Your task to perform on an android device: Go to privacy settings Image 0: 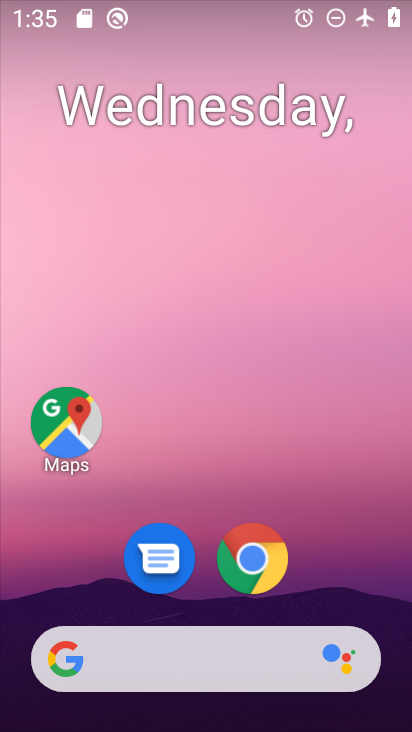
Step 0: drag from (387, 647) to (343, 56)
Your task to perform on an android device: Go to privacy settings Image 1: 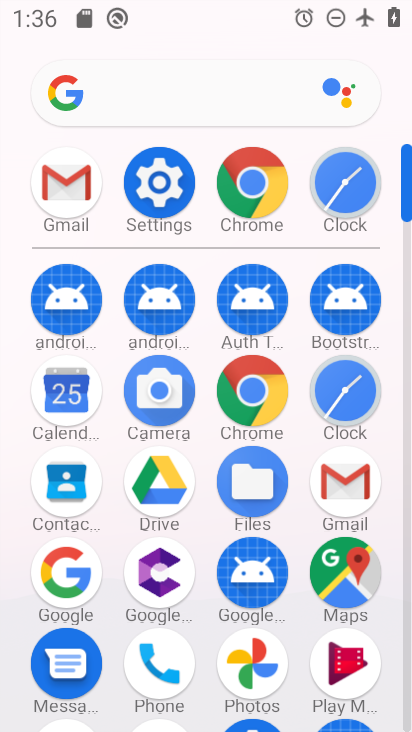
Step 1: click (148, 187)
Your task to perform on an android device: Go to privacy settings Image 2: 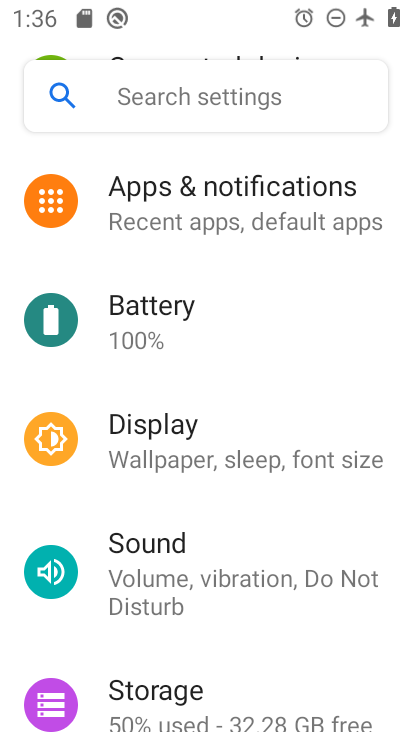
Step 2: drag from (183, 677) to (178, 207)
Your task to perform on an android device: Go to privacy settings Image 3: 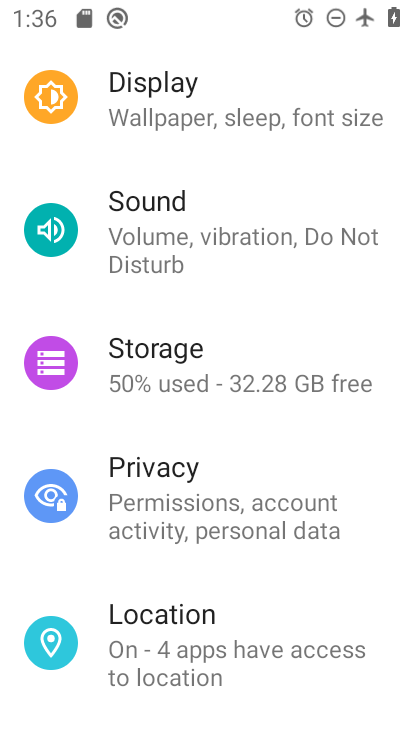
Step 3: click (183, 539)
Your task to perform on an android device: Go to privacy settings Image 4: 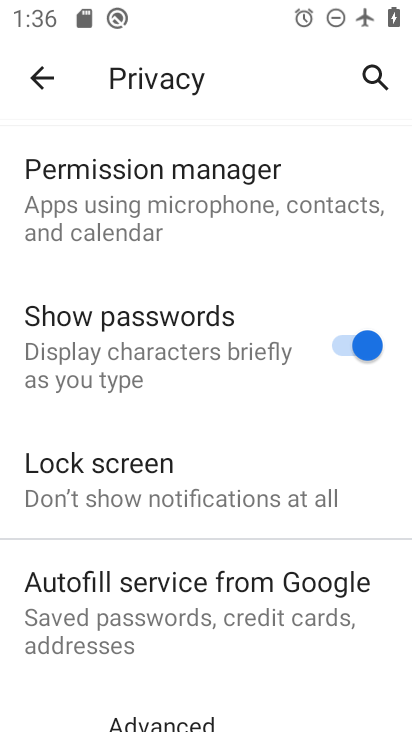
Step 4: task complete